Your task to perform on an android device: Open eBay Image 0: 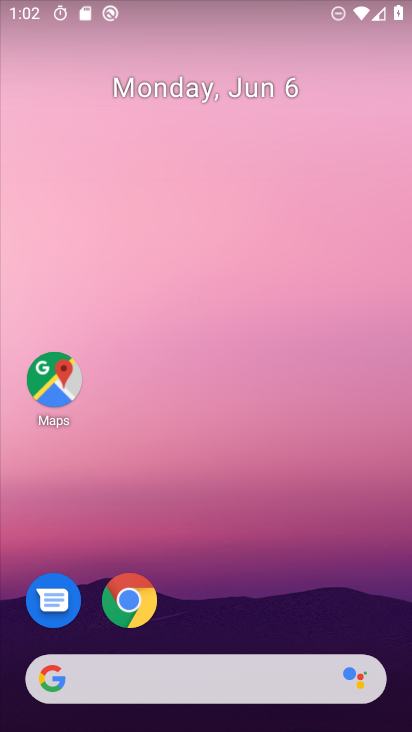
Step 0: click (123, 606)
Your task to perform on an android device: Open eBay Image 1: 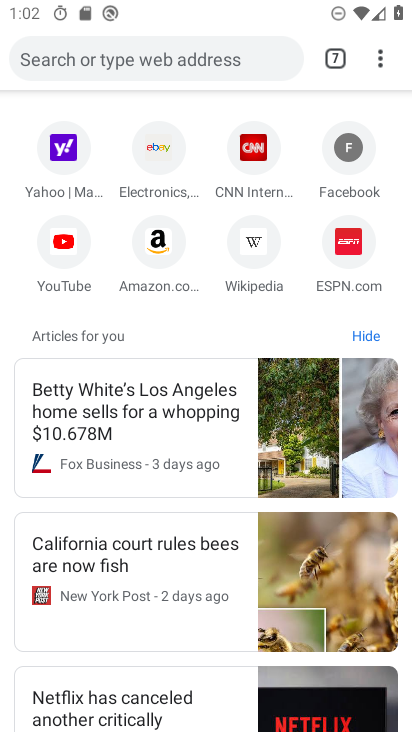
Step 1: click (162, 164)
Your task to perform on an android device: Open eBay Image 2: 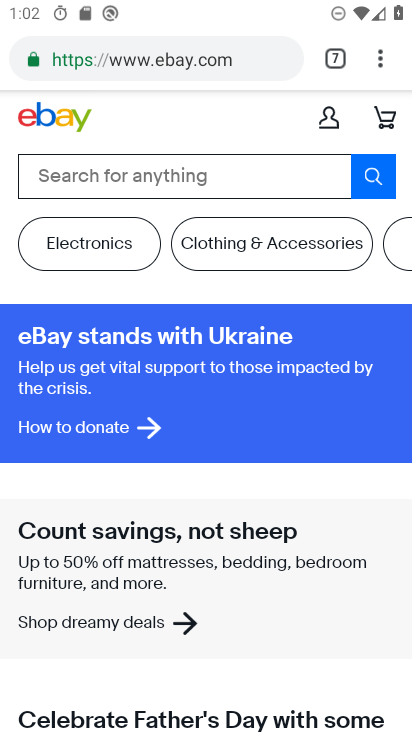
Step 2: task complete